Your task to perform on an android device: Open Maps and search for coffee Image 0: 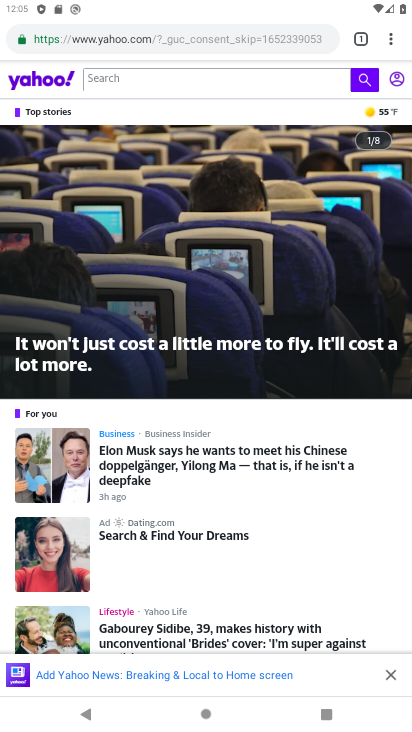
Step 0: press home button
Your task to perform on an android device: Open Maps and search for coffee Image 1: 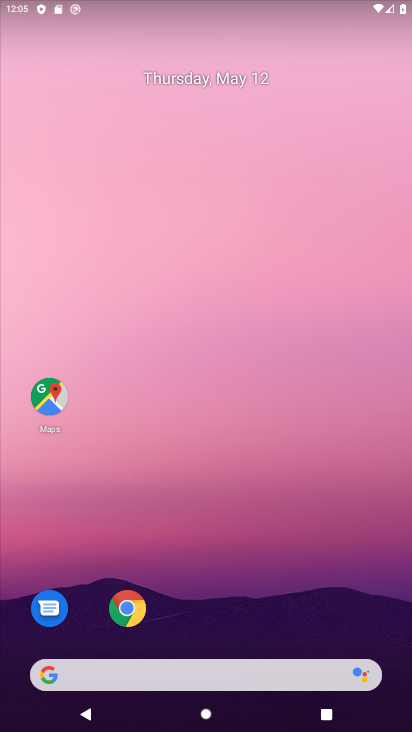
Step 1: click (62, 400)
Your task to perform on an android device: Open Maps and search for coffee Image 2: 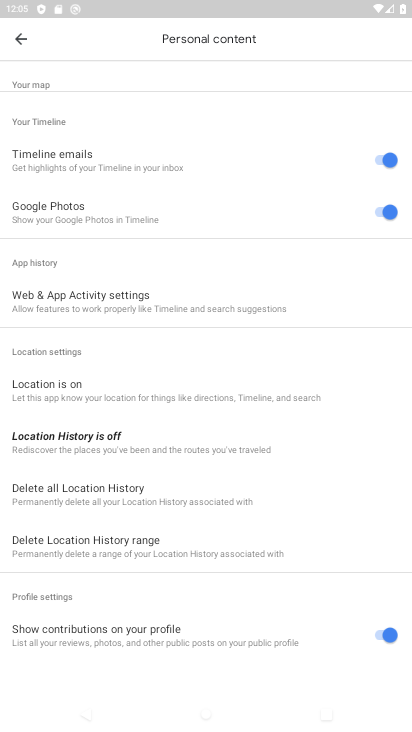
Step 2: click (22, 36)
Your task to perform on an android device: Open Maps and search for coffee Image 3: 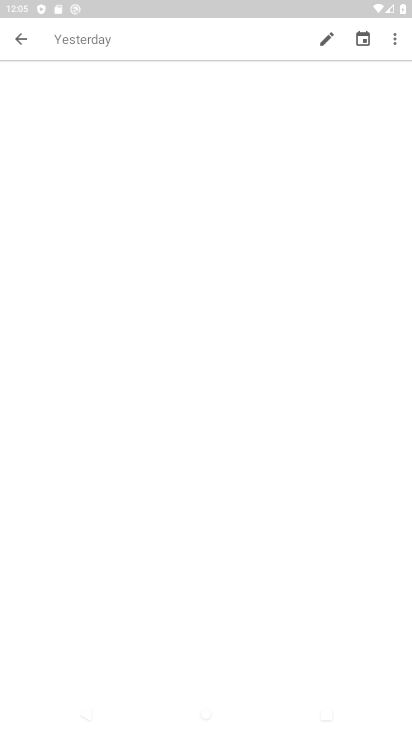
Step 3: click (22, 36)
Your task to perform on an android device: Open Maps and search for coffee Image 4: 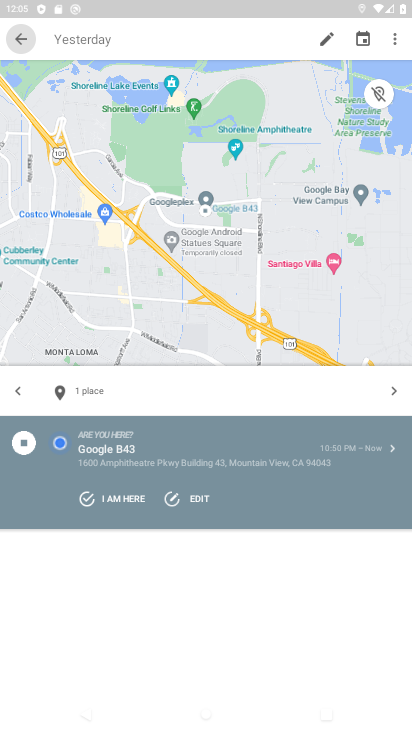
Step 4: click (22, 36)
Your task to perform on an android device: Open Maps and search for coffee Image 5: 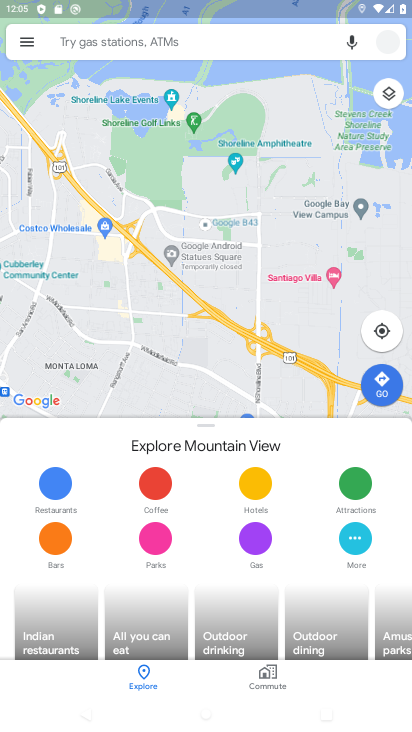
Step 5: click (112, 44)
Your task to perform on an android device: Open Maps and search for coffee Image 6: 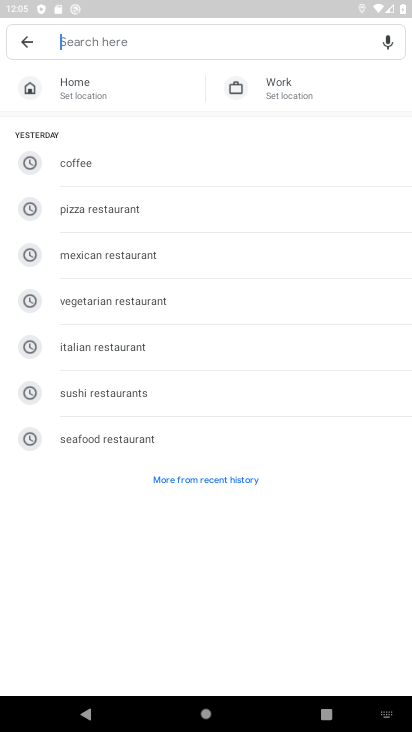
Step 6: type "coffee"
Your task to perform on an android device: Open Maps and search for coffee Image 7: 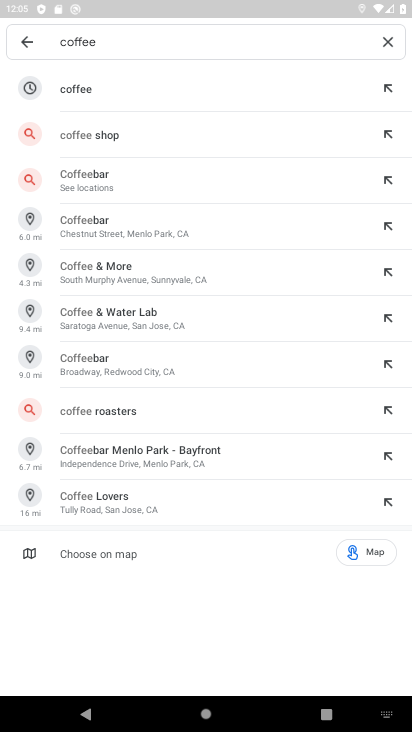
Step 7: click (134, 90)
Your task to perform on an android device: Open Maps and search for coffee Image 8: 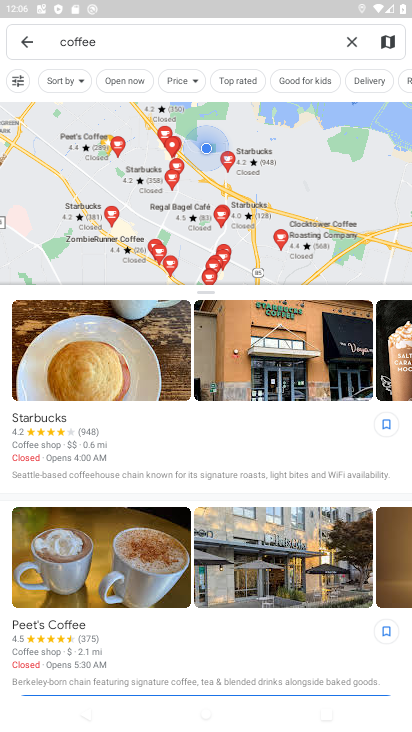
Step 8: task complete